Your task to perform on an android device: Open wifi settings Image 0: 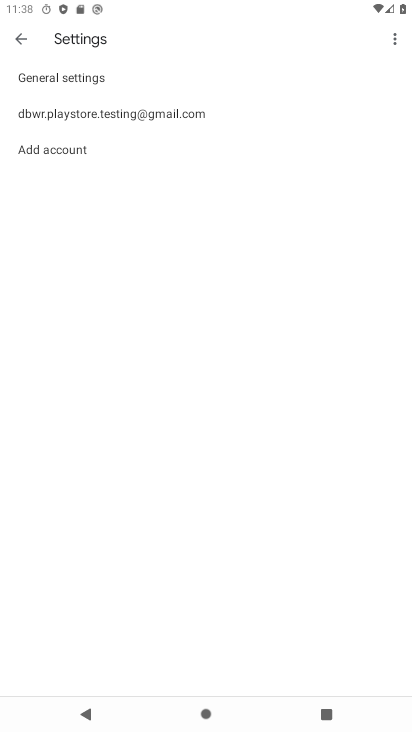
Step 0: press home button
Your task to perform on an android device: Open wifi settings Image 1: 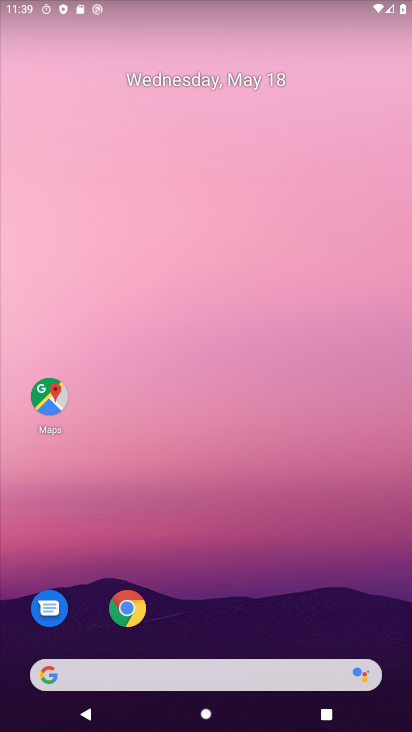
Step 1: drag from (252, 625) to (218, 15)
Your task to perform on an android device: Open wifi settings Image 2: 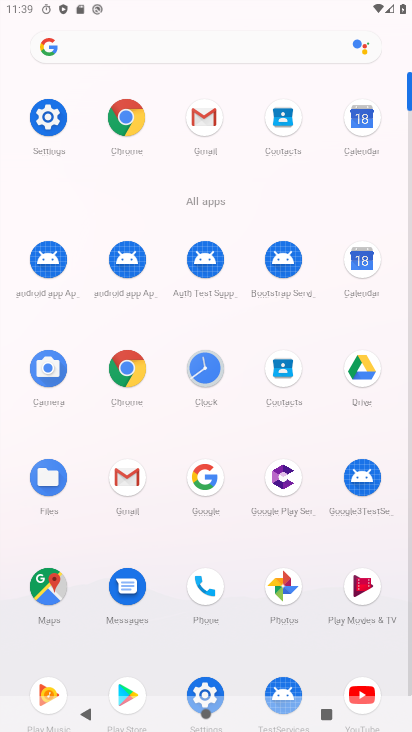
Step 2: click (54, 121)
Your task to perform on an android device: Open wifi settings Image 3: 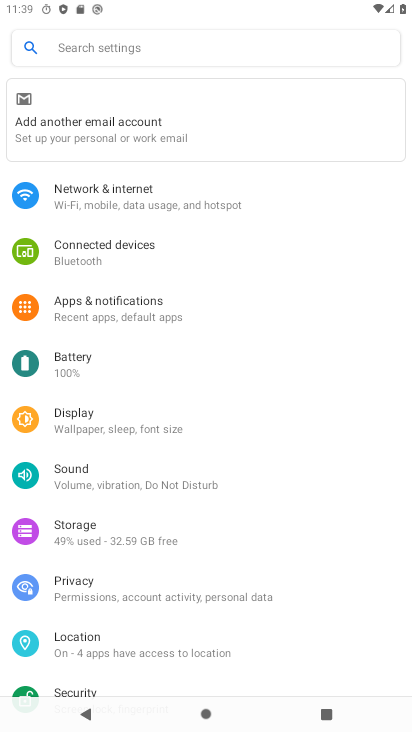
Step 3: click (327, 202)
Your task to perform on an android device: Open wifi settings Image 4: 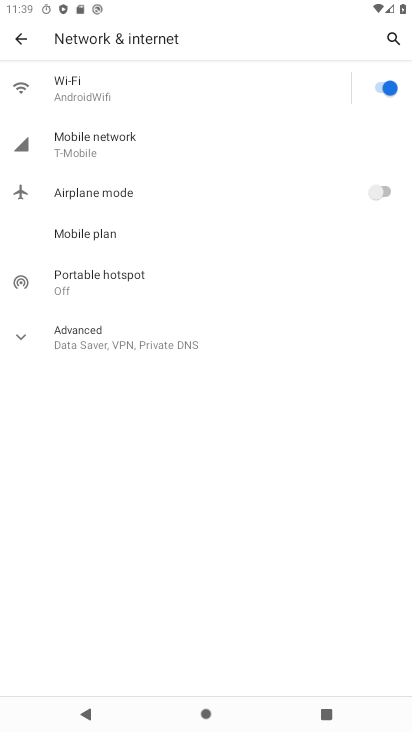
Step 4: click (96, 91)
Your task to perform on an android device: Open wifi settings Image 5: 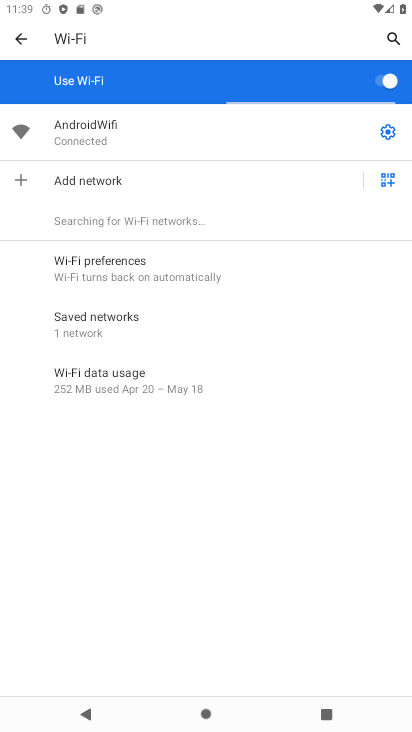
Step 5: task complete